Your task to perform on an android device: set the timer Image 0: 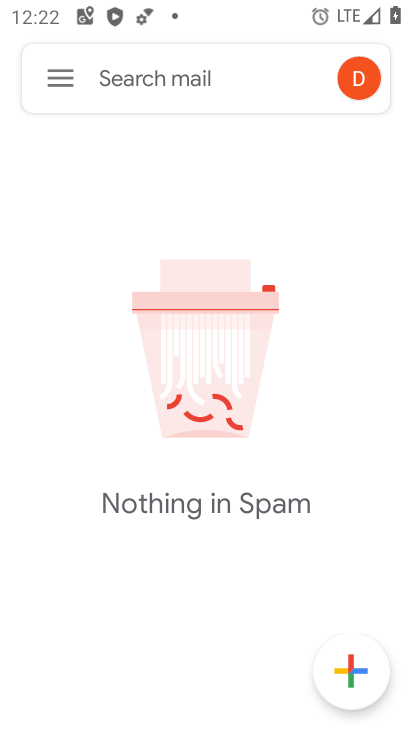
Step 0: press home button
Your task to perform on an android device: set the timer Image 1: 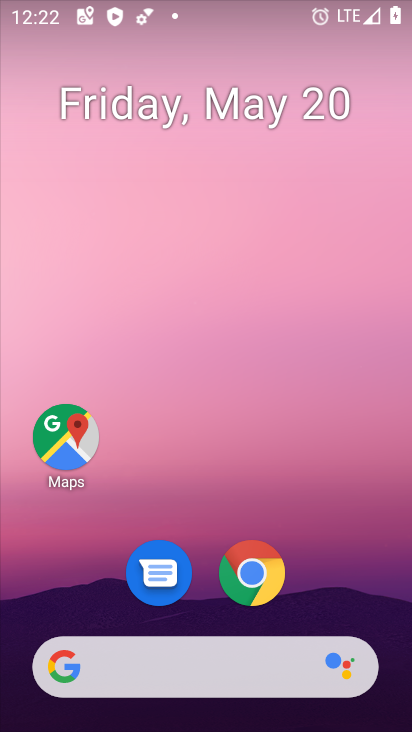
Step 1: drag from (205, 625) to (182, 206)
Your task to perform on an android device: set the timer Image 2: 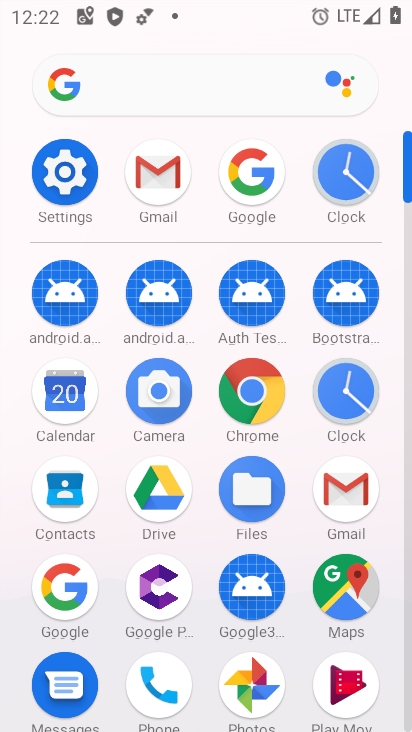
Step 2: click (320, 173)
Your task to perform on an android device: set the timer Image 3: 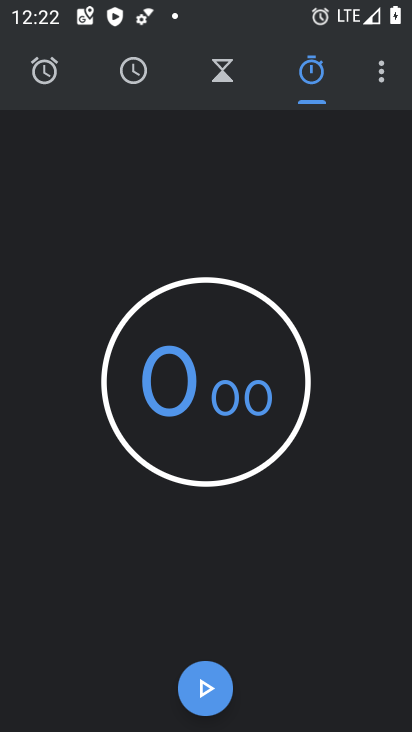
Step 3: click (218, 54)
Your task to perform on an android device: set the timer Image 4: 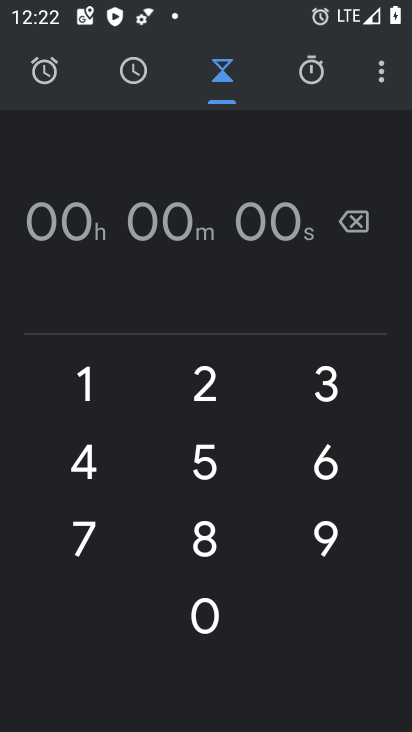
Step 4: click (264, 221)
Your task to perform on an android device: set the timer Image 5: 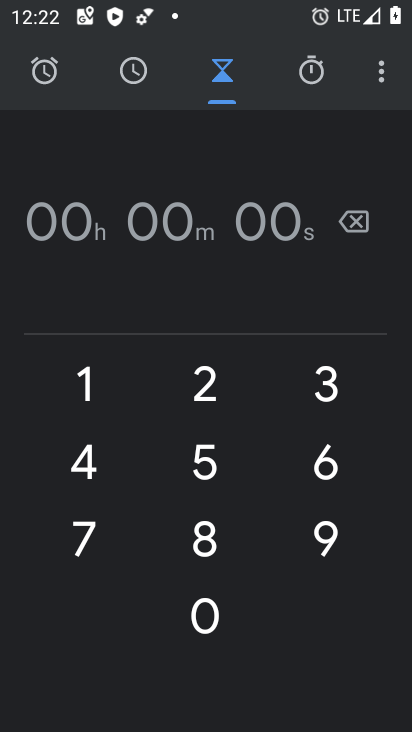
Step 5: type "12"
Your task to perform on an android device: set the timer Image 6: 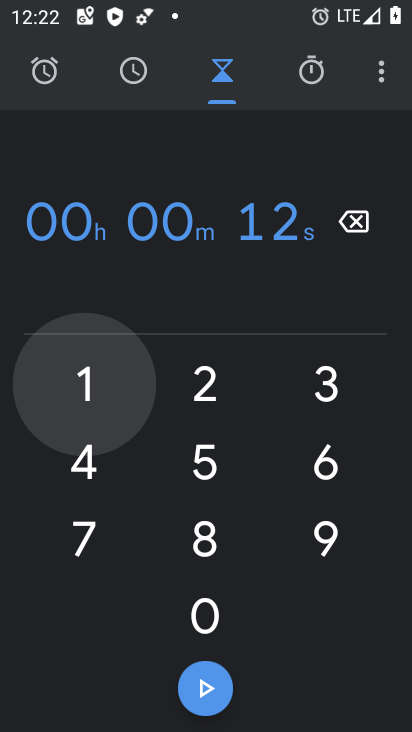
Step 6: click (204, 675)
Your task to perform on an android device: set the timer Image 7: 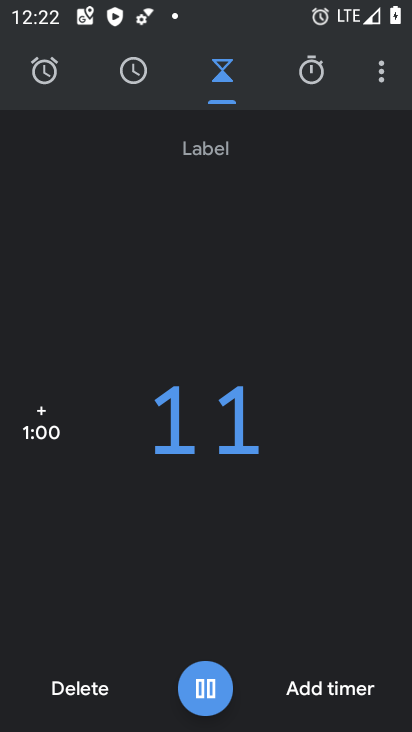
Step 7: task complete